Your task to perform on an android device: change notifications settings Image 0: 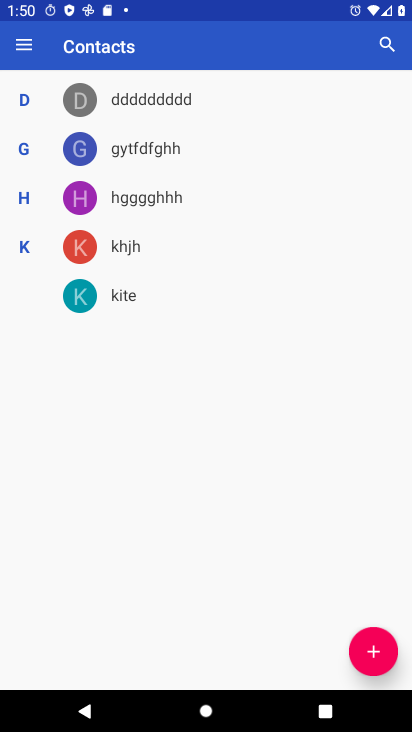
Step 0: press home button
Your task to perform on an android device: change notifications settings Image 1: 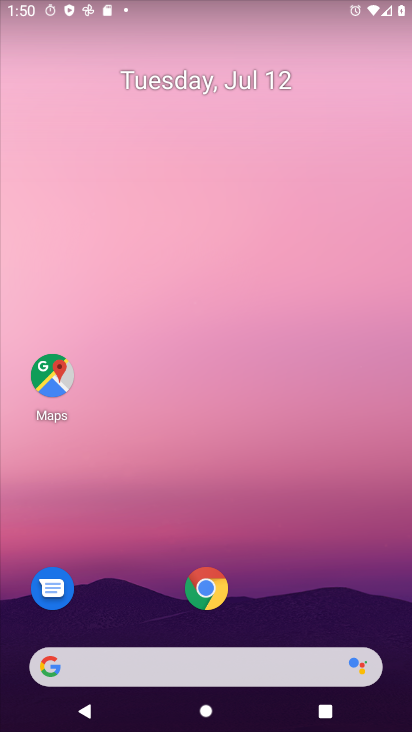
Step 1: drag from (206, 661) to (350, 110)
Your task to perform on an android device: change notifications settings Image 2: 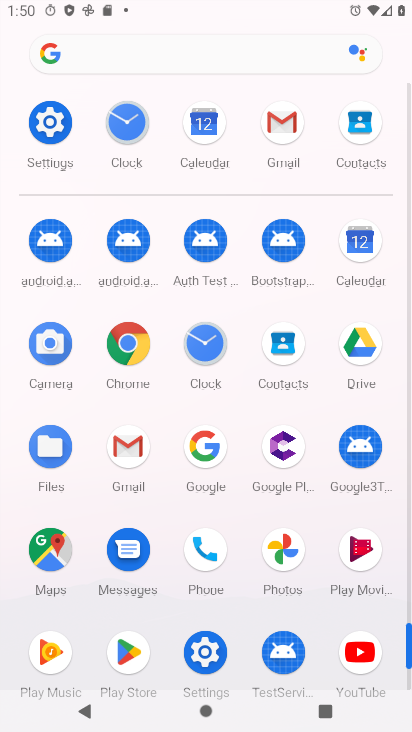
Step 2: click (50, 120)
Your task to perform on an android device: change notifications settings Image 3: 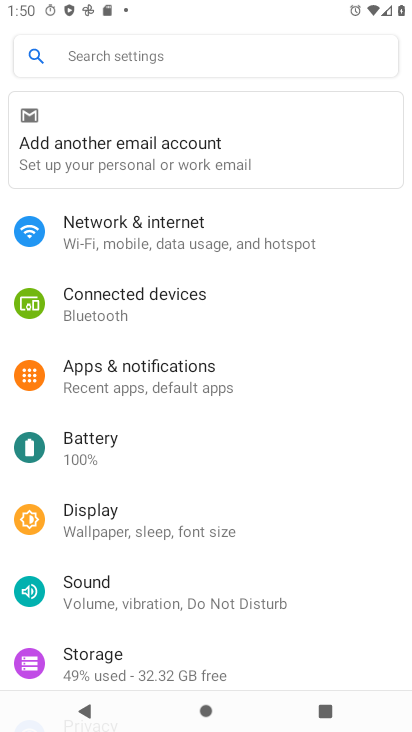
Step 3: click (163, 372)
Your task to perform on an android device: change notifications settings Image 4: 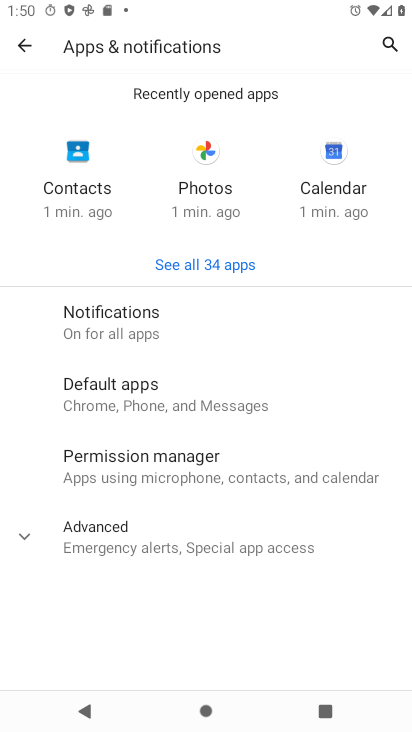
Step 4: click (142, 328)
Your task to perform on an android device: change notifications settings Image 5: 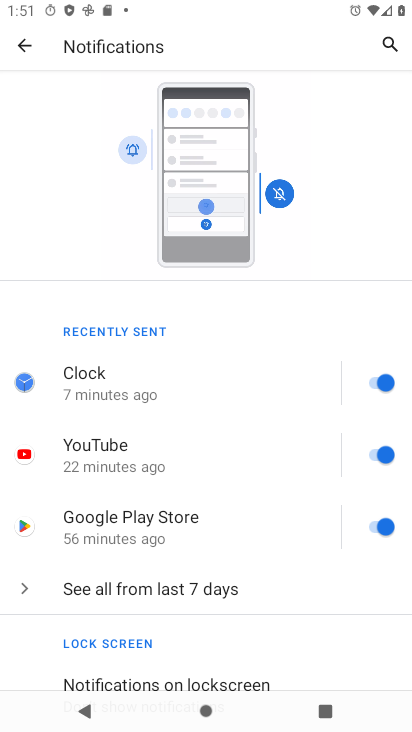
Step 5: click (375, 377)
Your task to perform on an android device: change notifications settings Image 6: 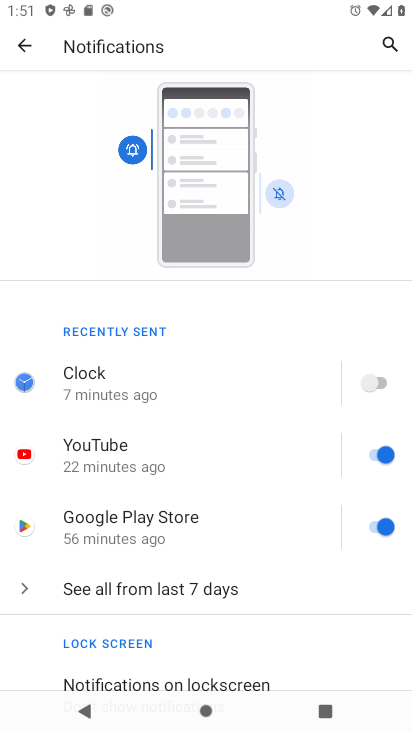
Step 6: task complete